Your task to perform on an android device: see sites visited before in the chrome app Image 0: 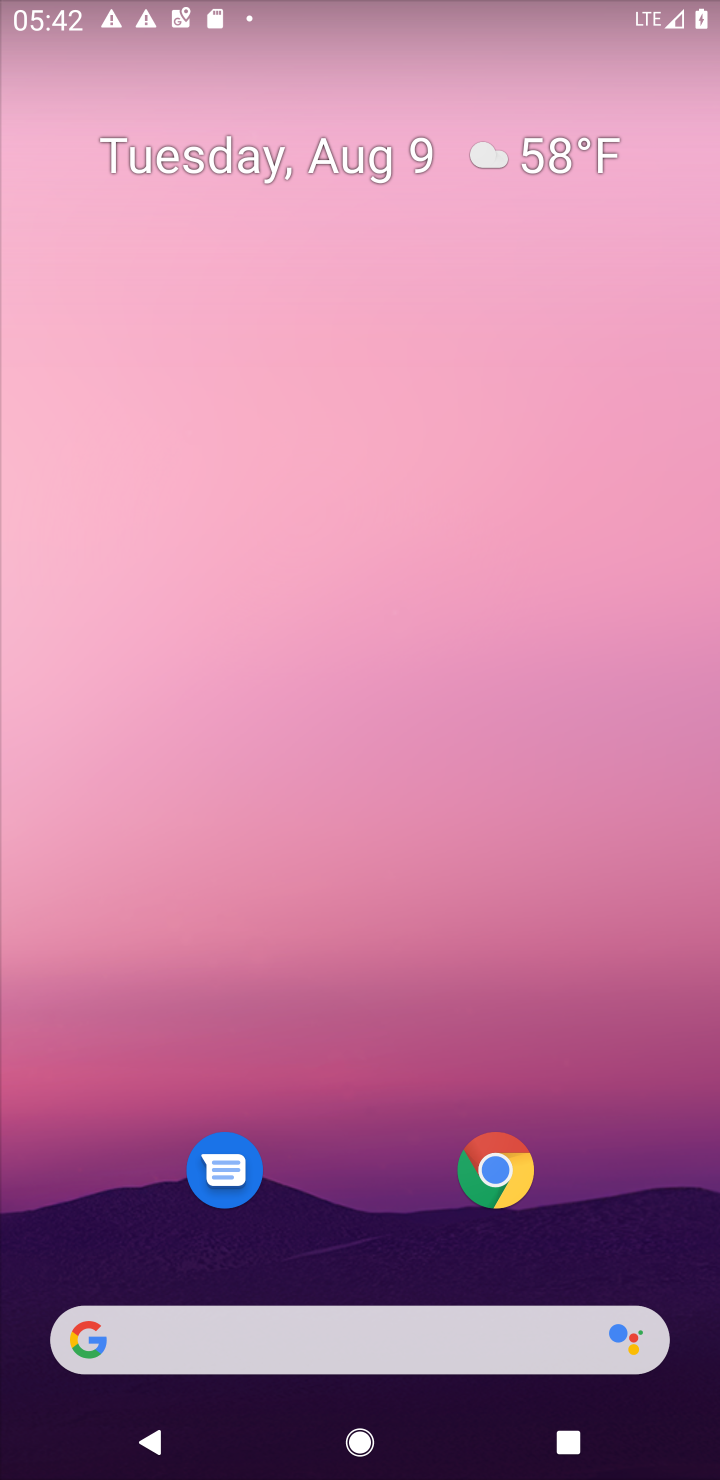
Step 0: press home button
Your task to perform on an android device: see sites visited before in the chrome app Image 1: 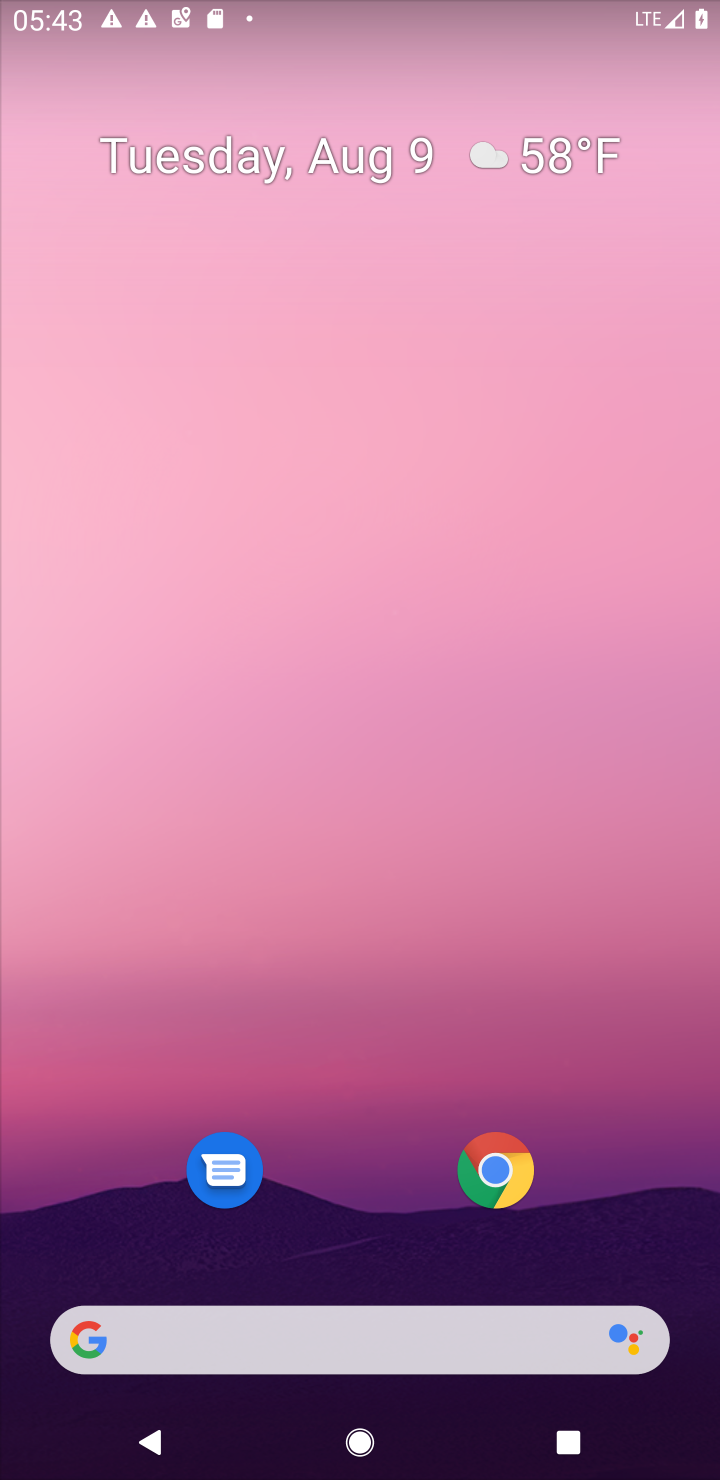
Step 1: click (487, 1183)
Your task to perform on an android device: see sites visited before in the chrome app Image 2: 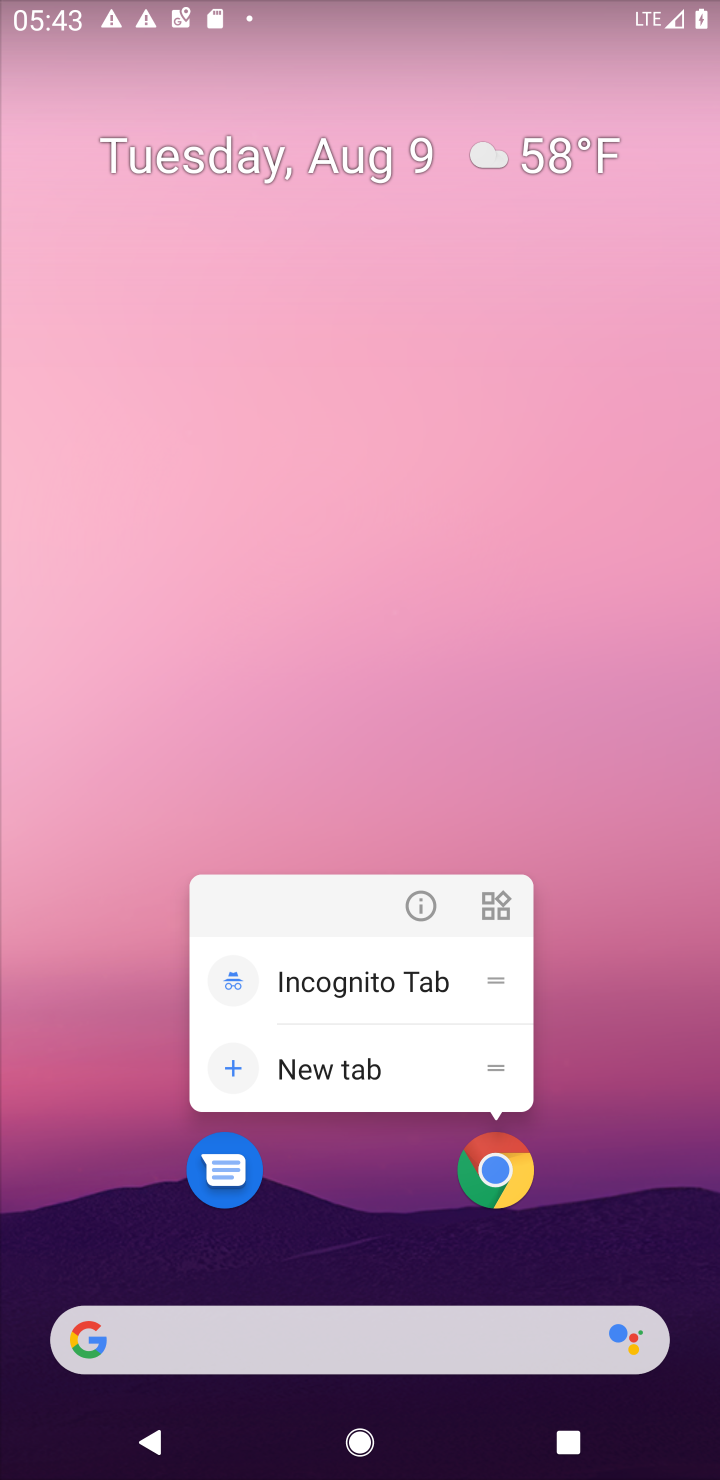
Step 2: click (487, 1183)
Your task to perform on an android device: see sites visited before in the chrome app Image 3: 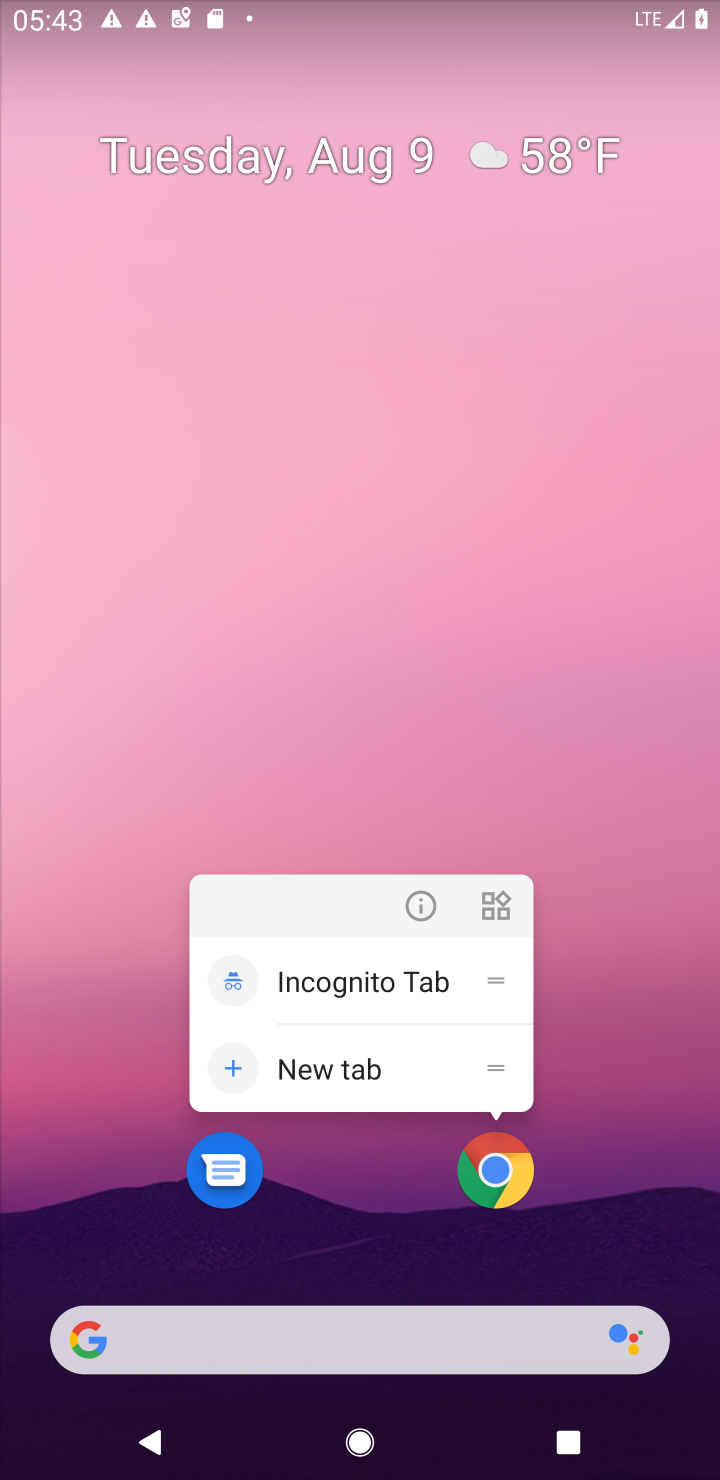
Step 3: click (513, 1183)
Your task to perform on an android device: see sites visited before in the chrome app Image 4: 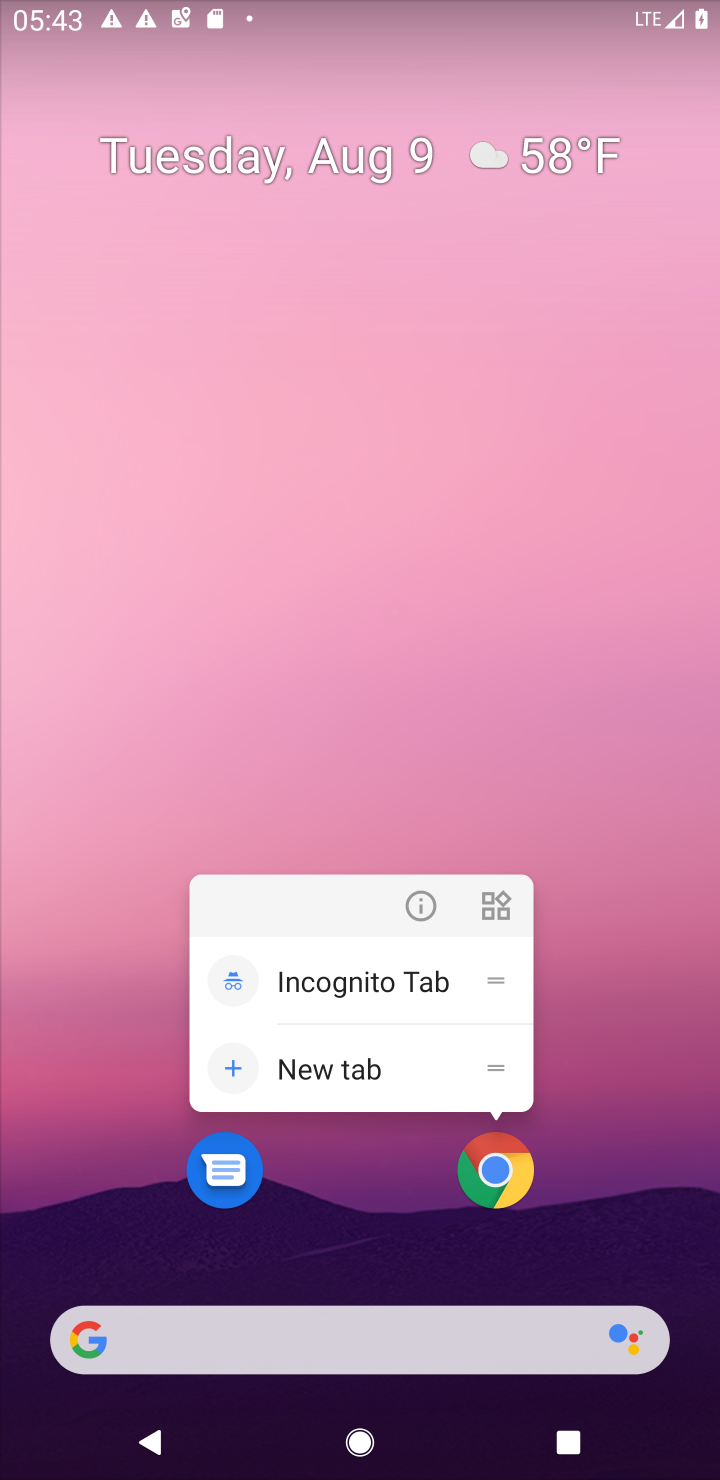
Step 4: click (500, 1184)
Your task to perform on an android device: see sites visited before in the chrome app Image 5: 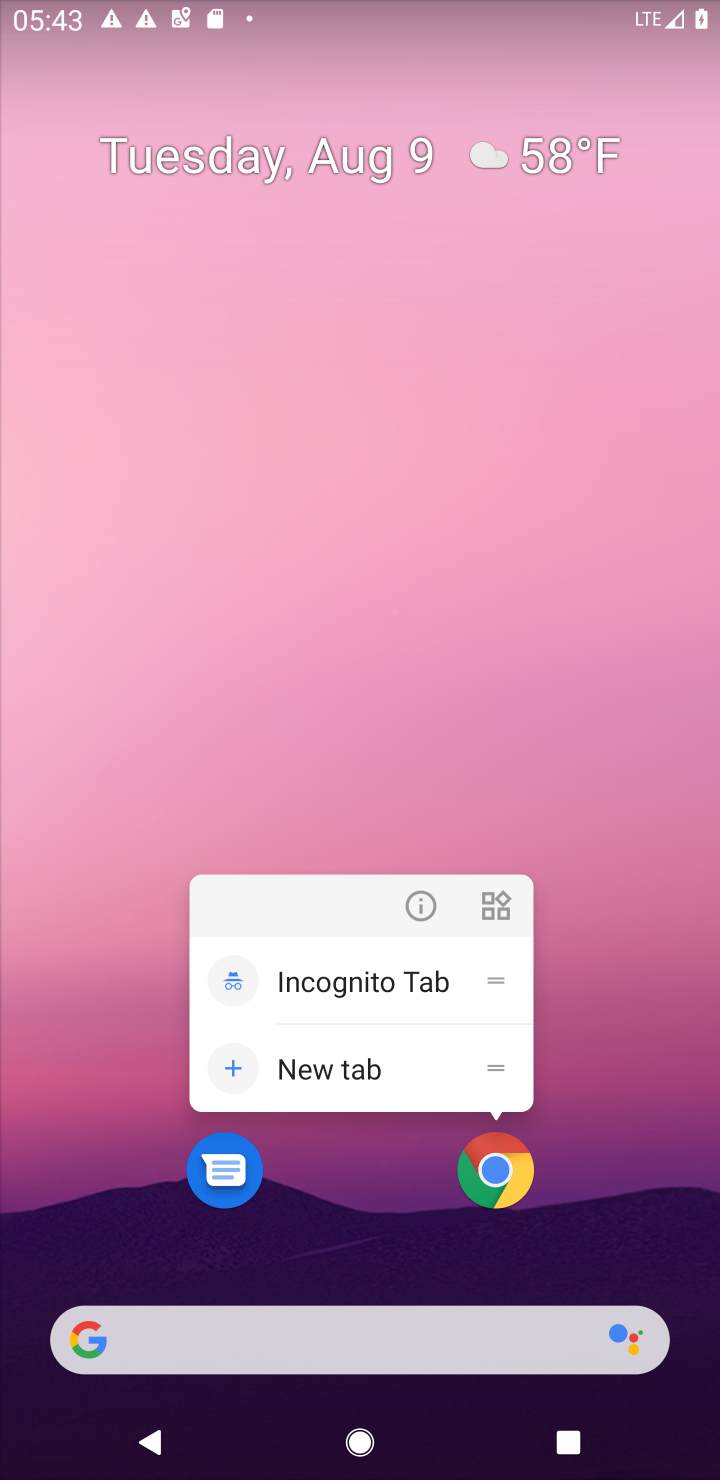
Step 5: click (500, 1184)
Your task to perform on an android device: see sites visited before in the chrome app Image 6: 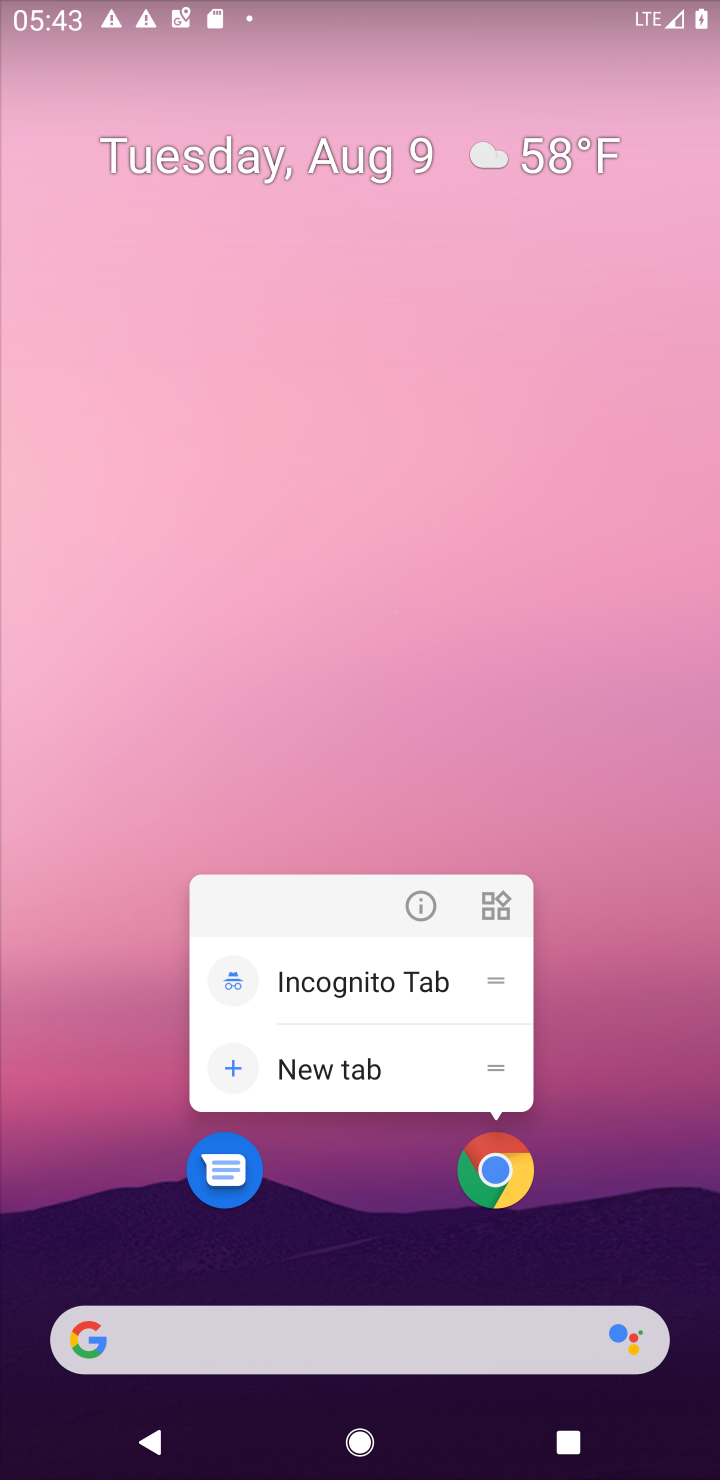
Step 6: click (500, 1184)
Your task to perform on an android device: see sites visited before in the chrome app Image 7: 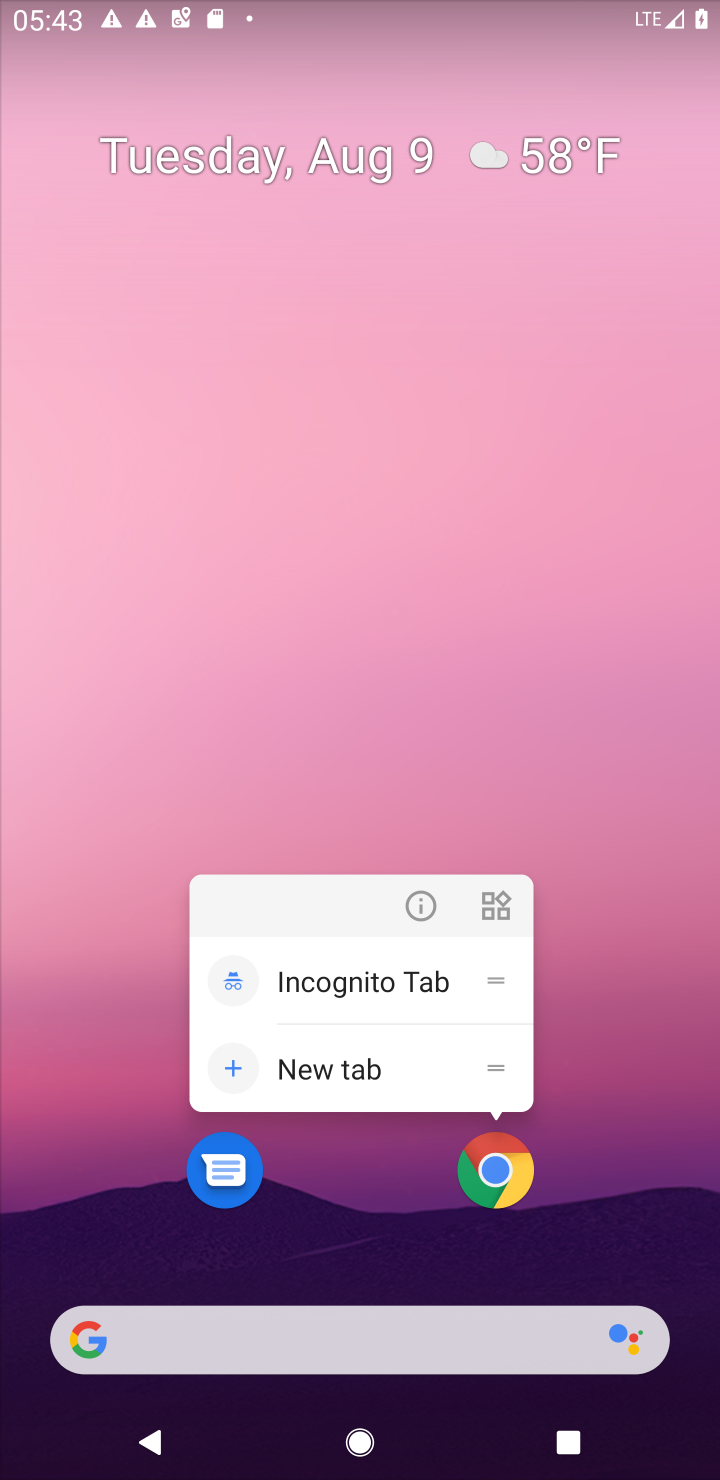
Step 7: click (500, 1184)
Your task to perform on an android device: see sites visited before in the chrome app Image 8: 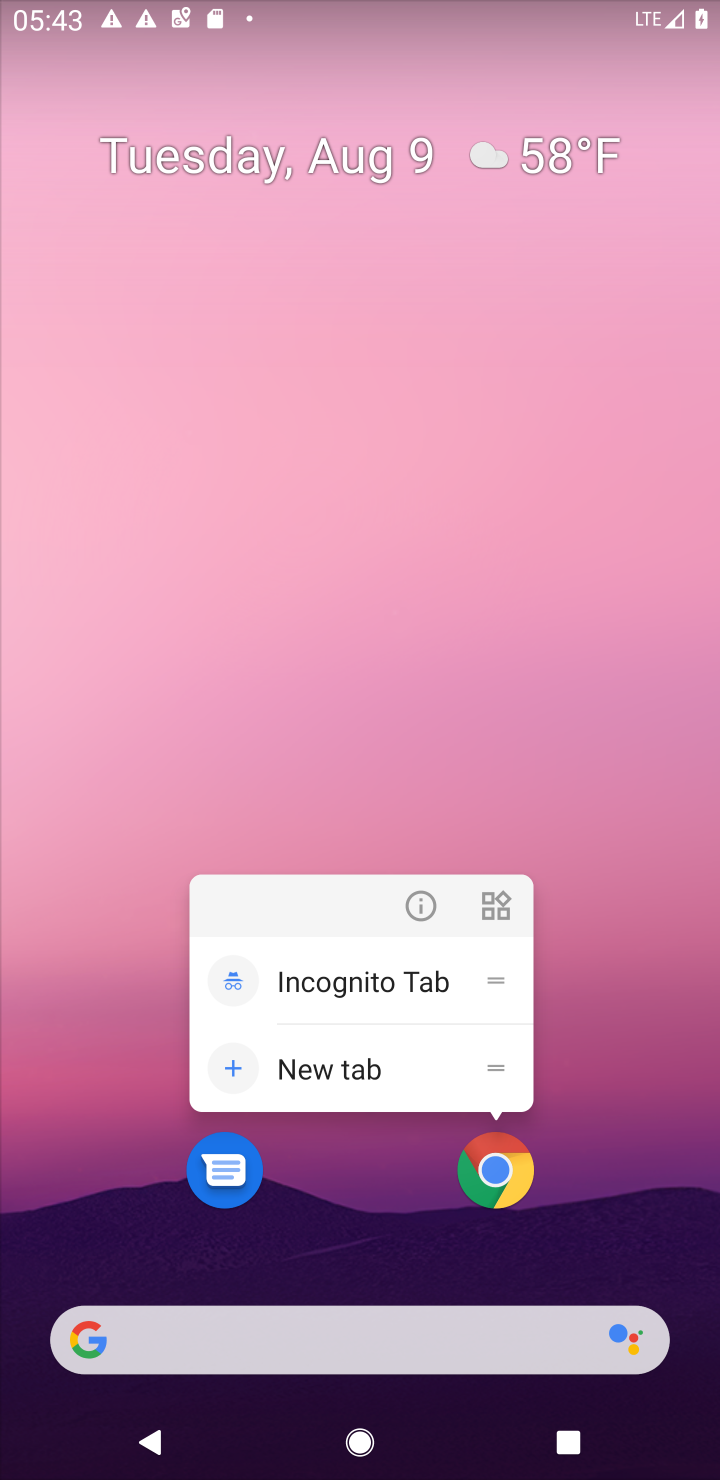
Step 8: click (500, 1184)
Your task to perform on an android device: see sites visited before in the chrome app Image 9: 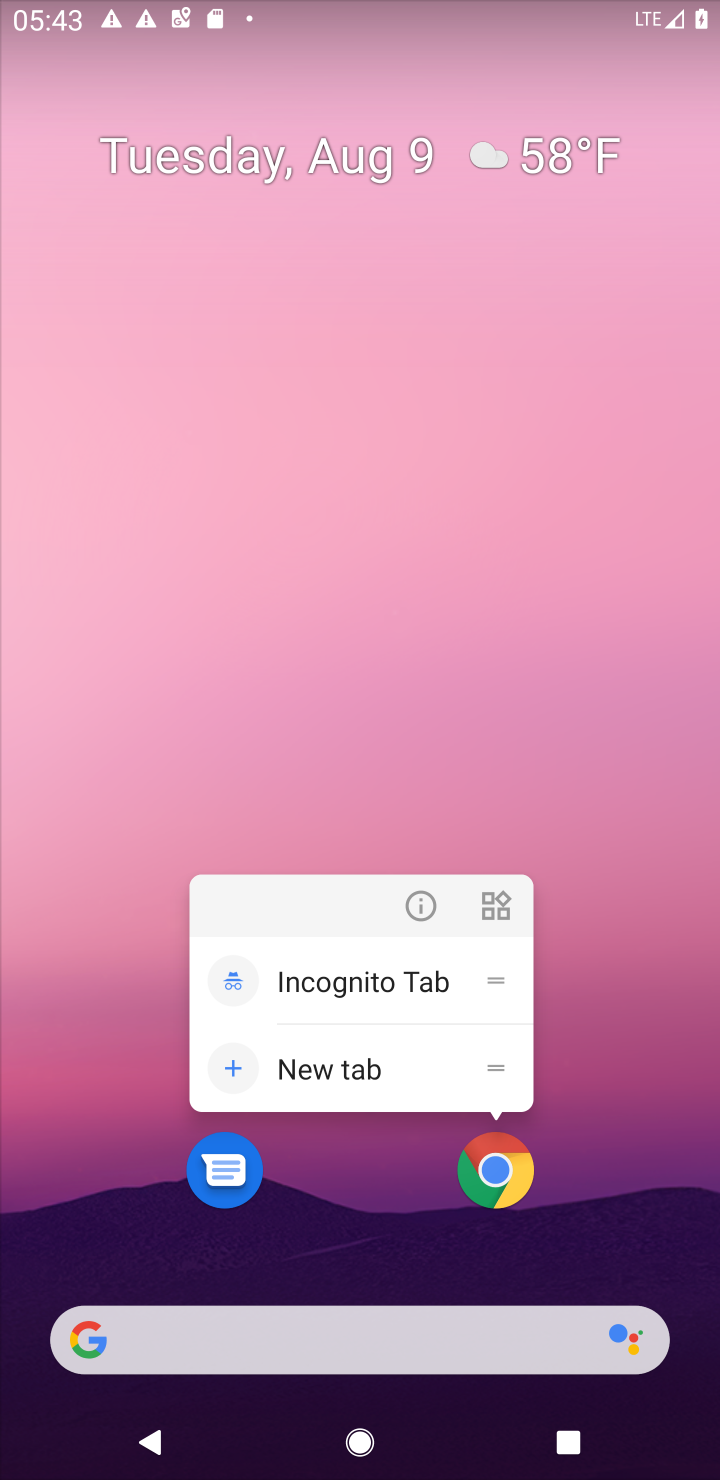
Step 9: click (500, 1184)
Your task to perform on an android device: see sites visited before in the chrome app Image 10: 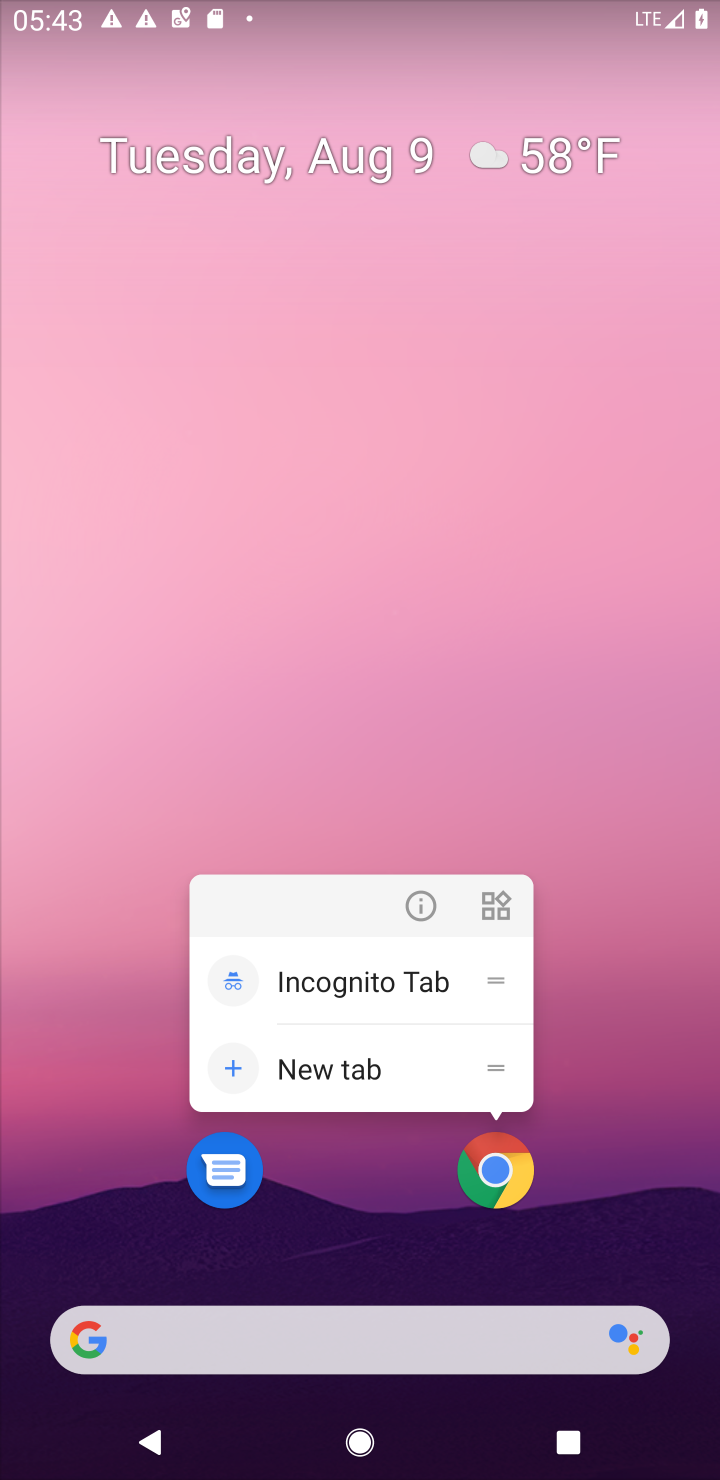
Step 10: click (499, 1184)
Your task to perform on an android device: see sites visited before in the chrome app Image 11: 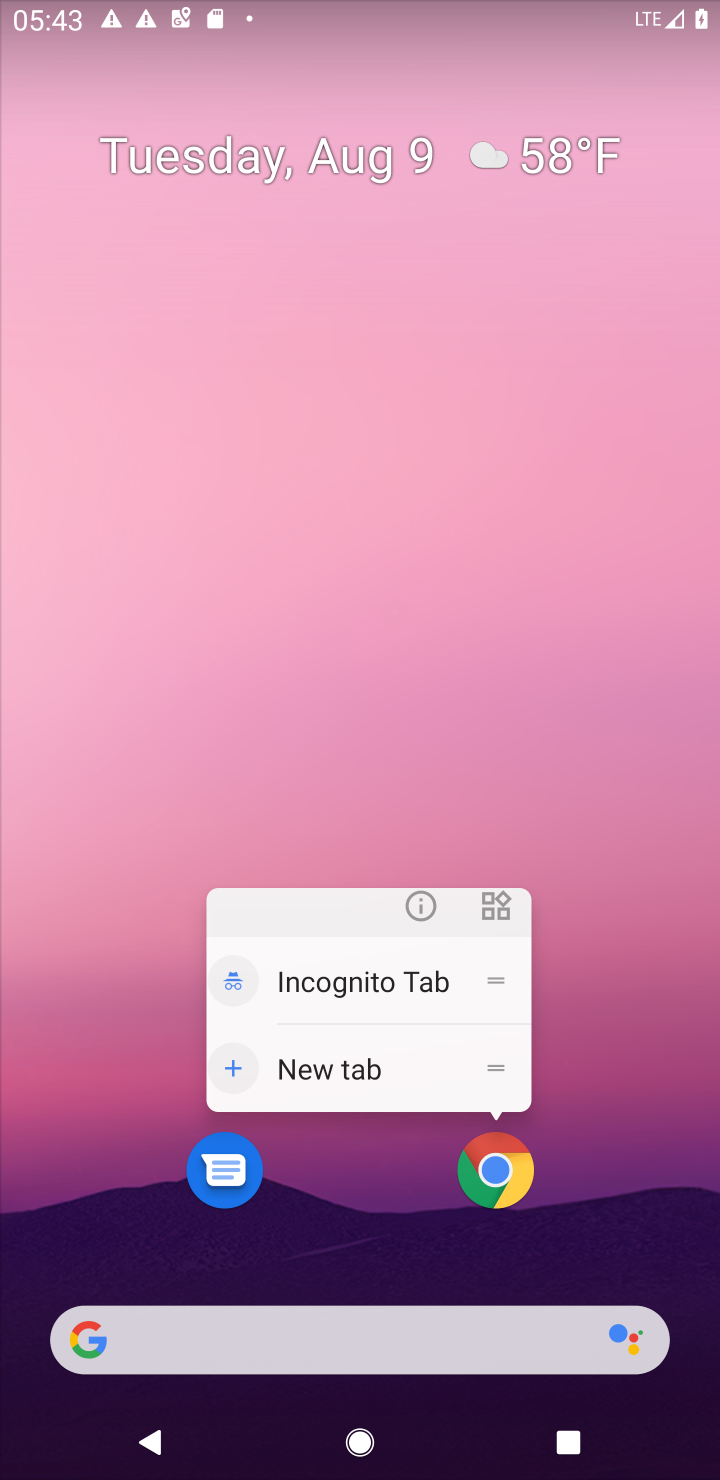
Step 11: click (499, 1184)
Your task to perform on an android device: see sites visited before in the chrome app Image 12: 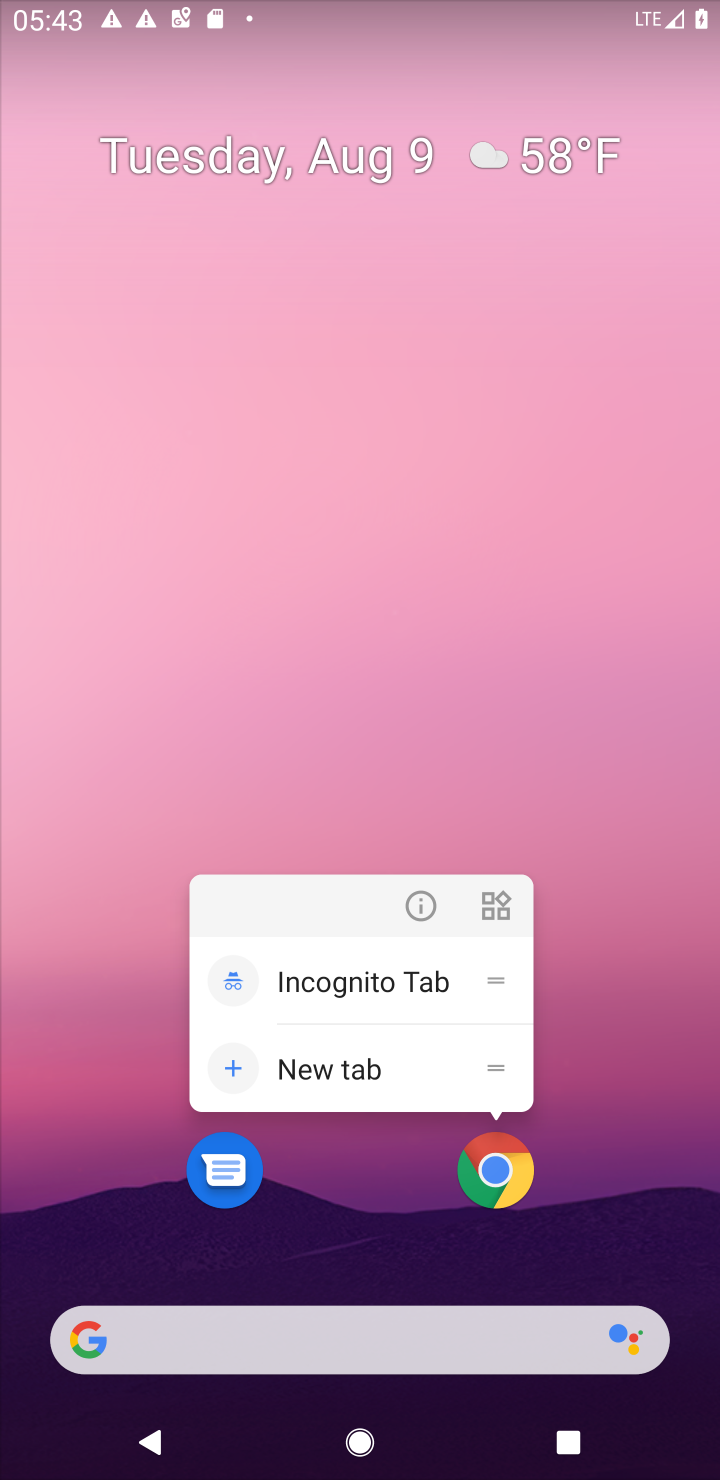
Step 12: click (496, 1170)
Your task to perform on an android device: see sites visited before in the chrome app Image 13: 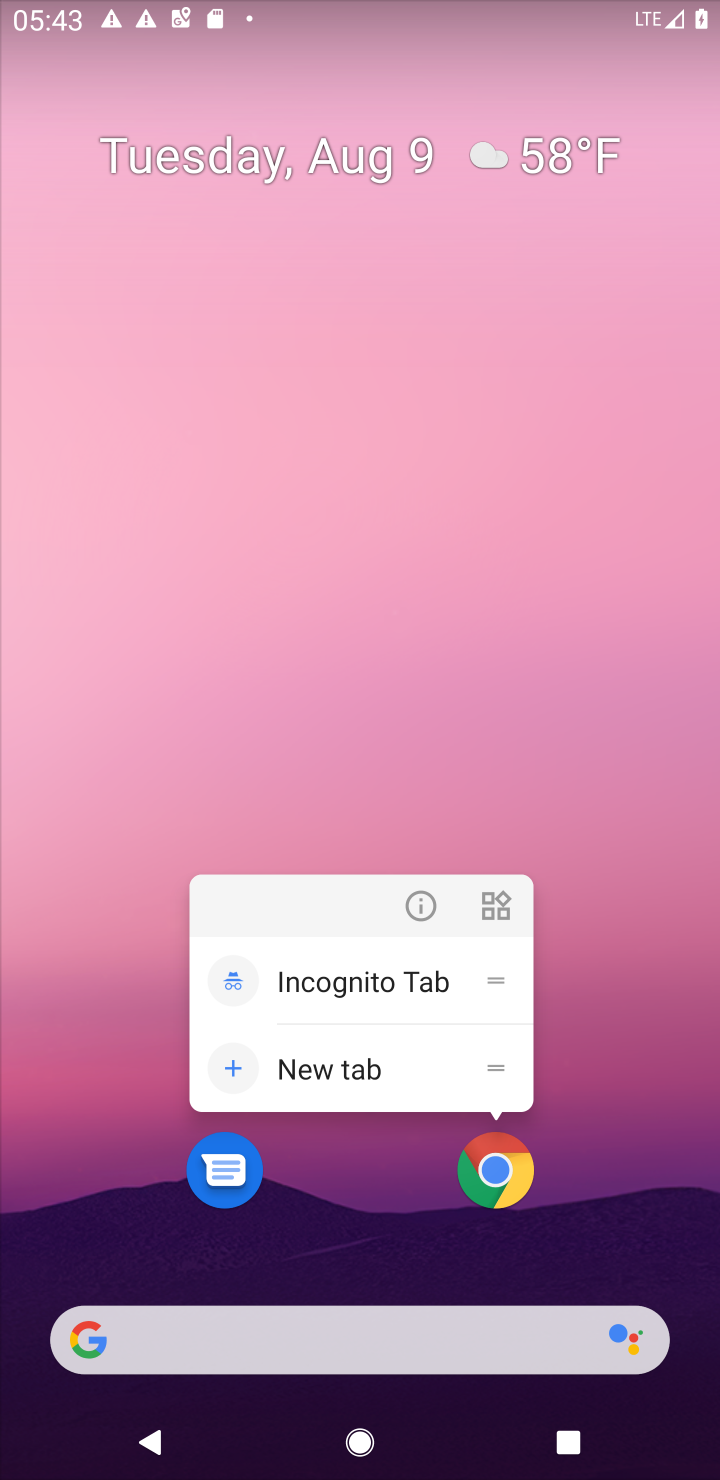
Step 13: click (490, 1182)
Your task to perform on an android device: see sites visited before in the chrome app Image 14: 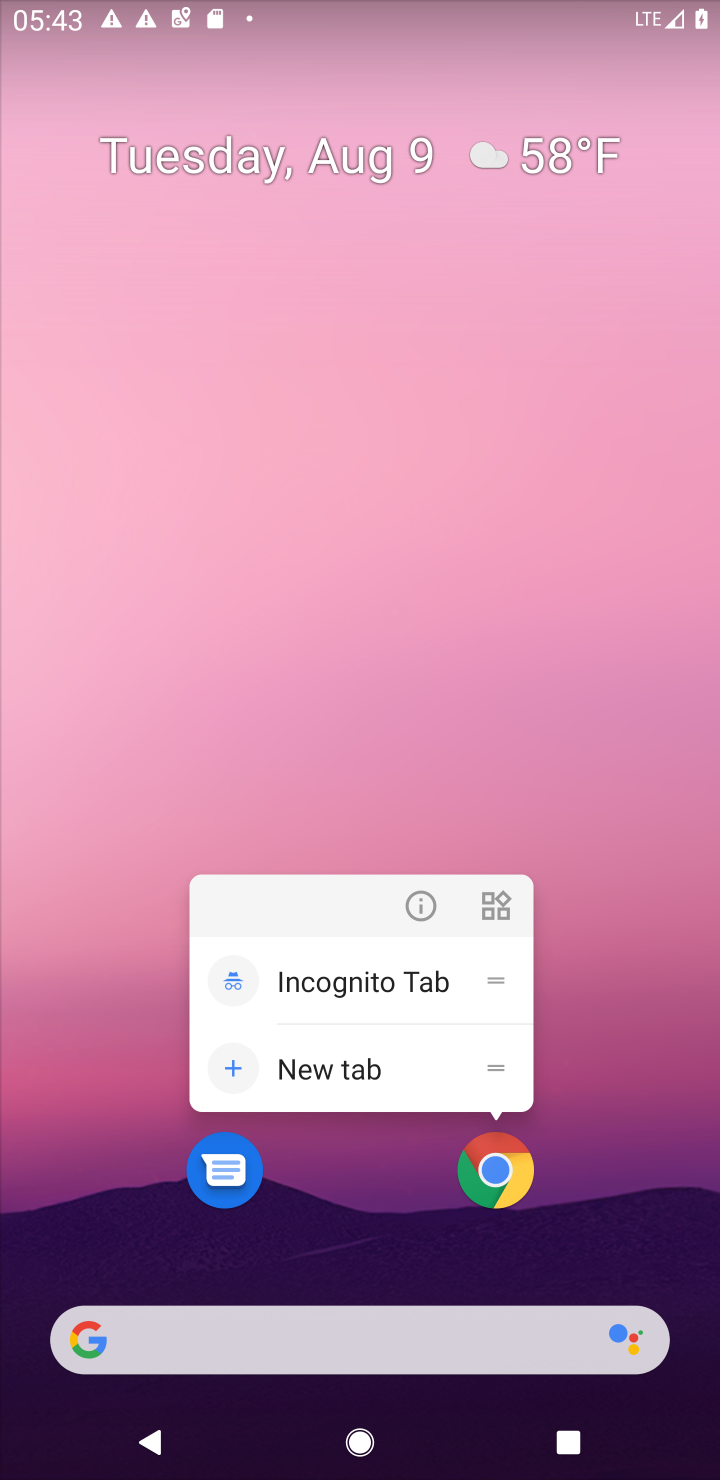
Step 14: click (513, 1177)
Your task to perform on an android device: see sites visited before in the chrome app Image 15: 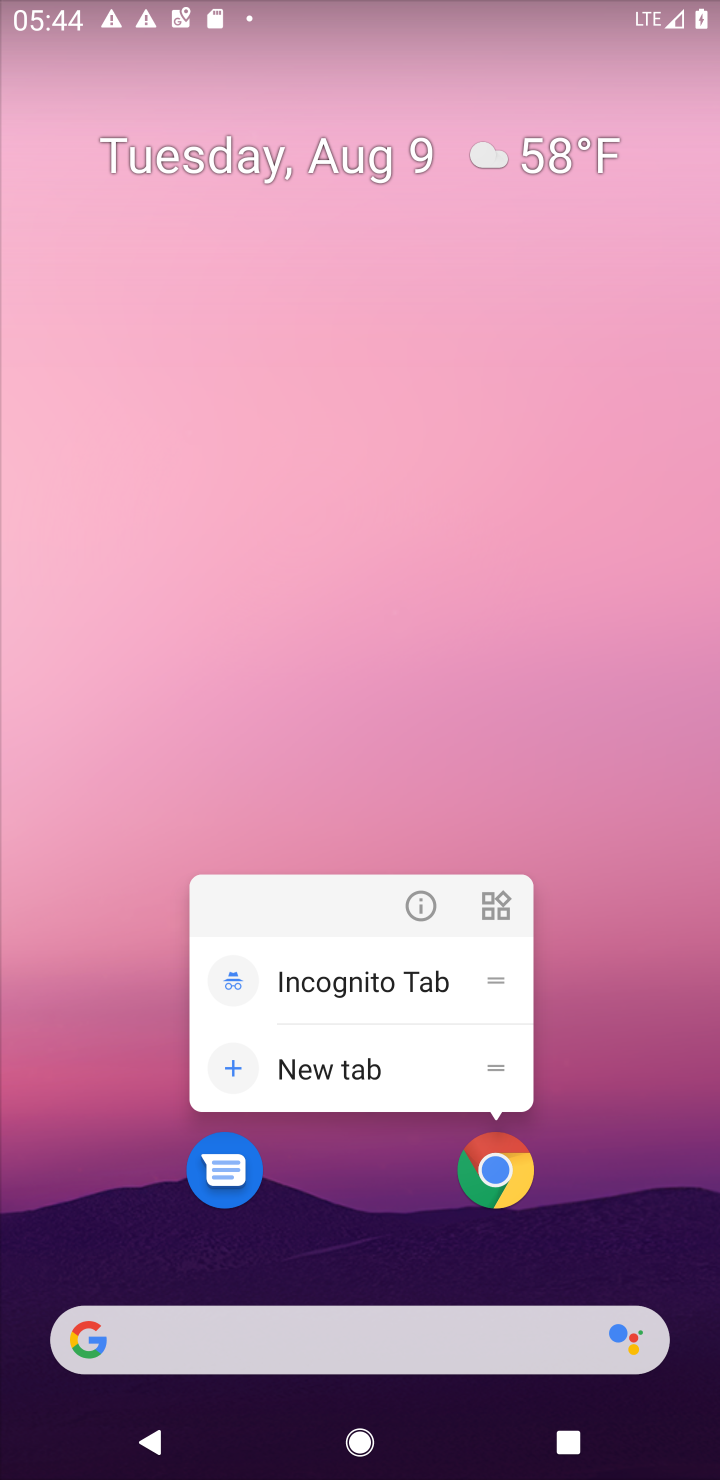
Step 15: click (513, 1177)
Your task to perform on an android device: see sites visited before in the chrome app Image 16: 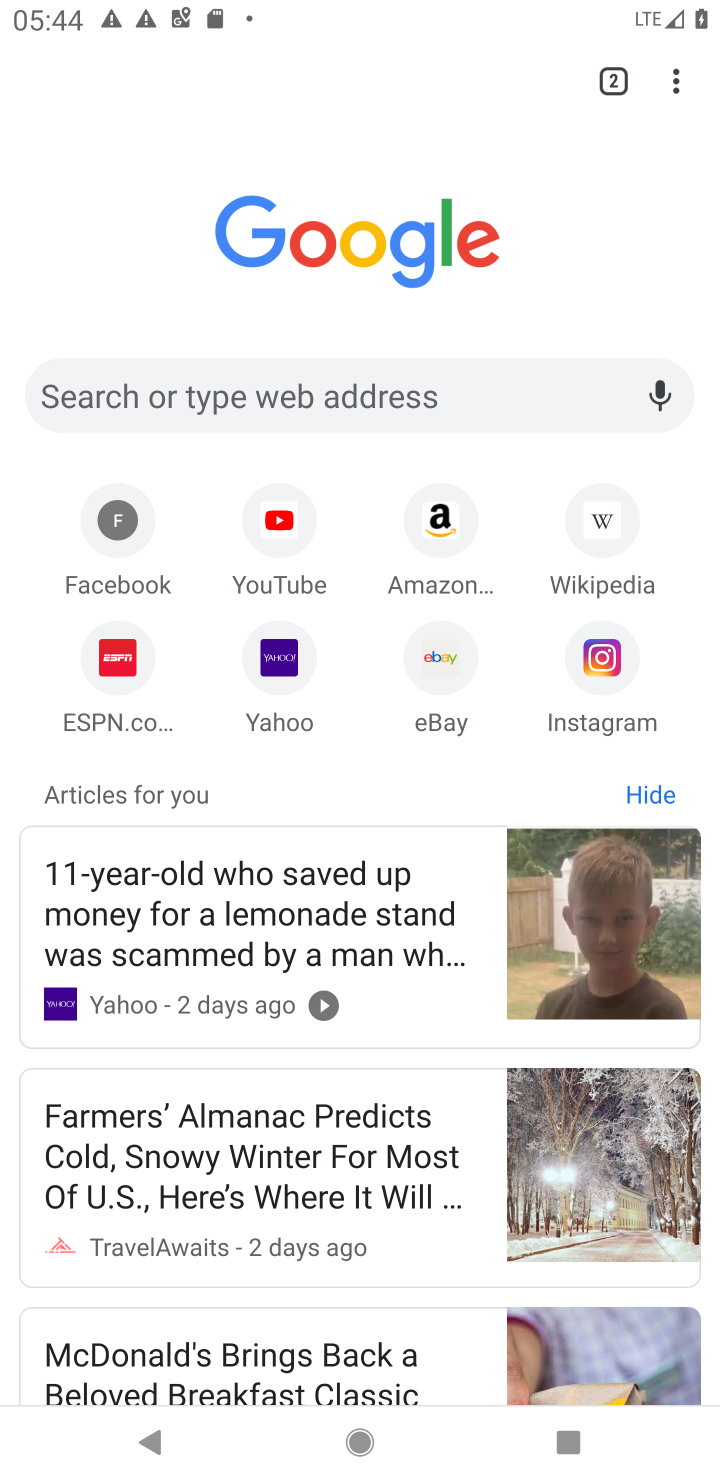
Step 16: task complete